Your task to perform on an android device: Search for a new nail polish Image 0: 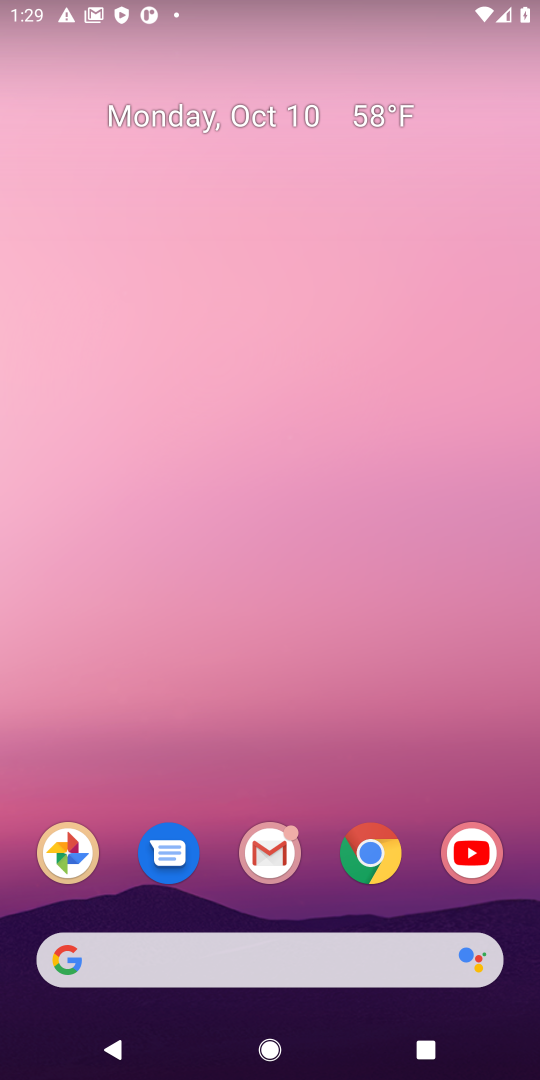
Step 0: drag from (537, 952) to (483, 1063)
Your task to perform on an android device: Search for a new nail polish Image 1: 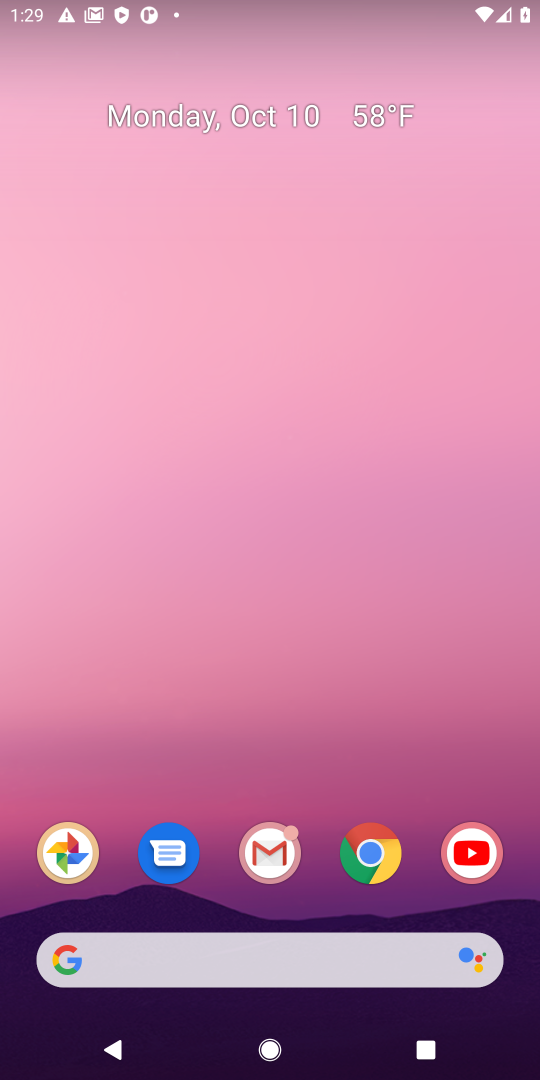
Step 1: click (358, 857)
Your task to perform on an android device: Search for a new nail polish Image 2: 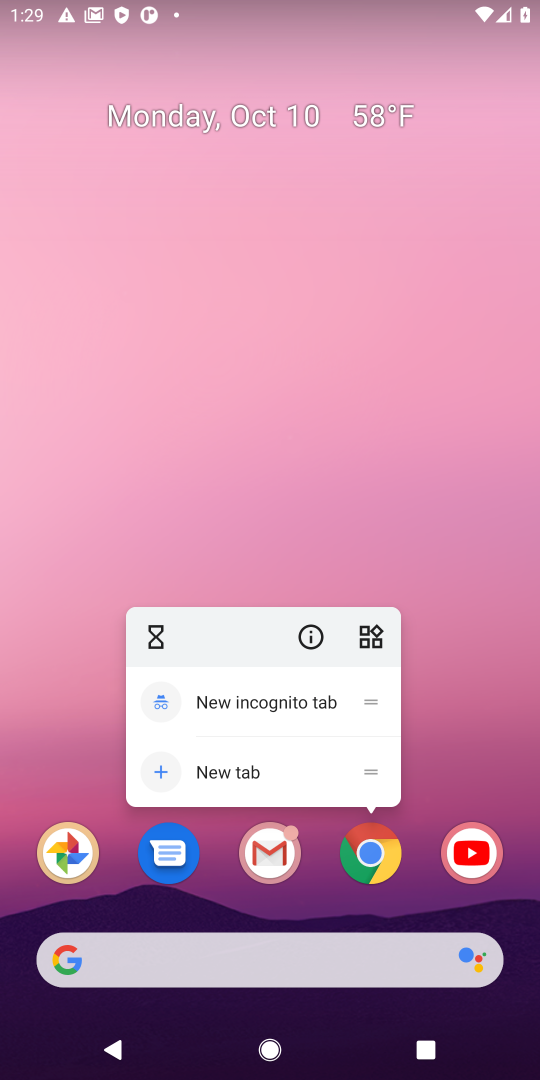
Step 2: click (382, 863)
Your task to perform on an android device: Search for a new nail polish Image 3: 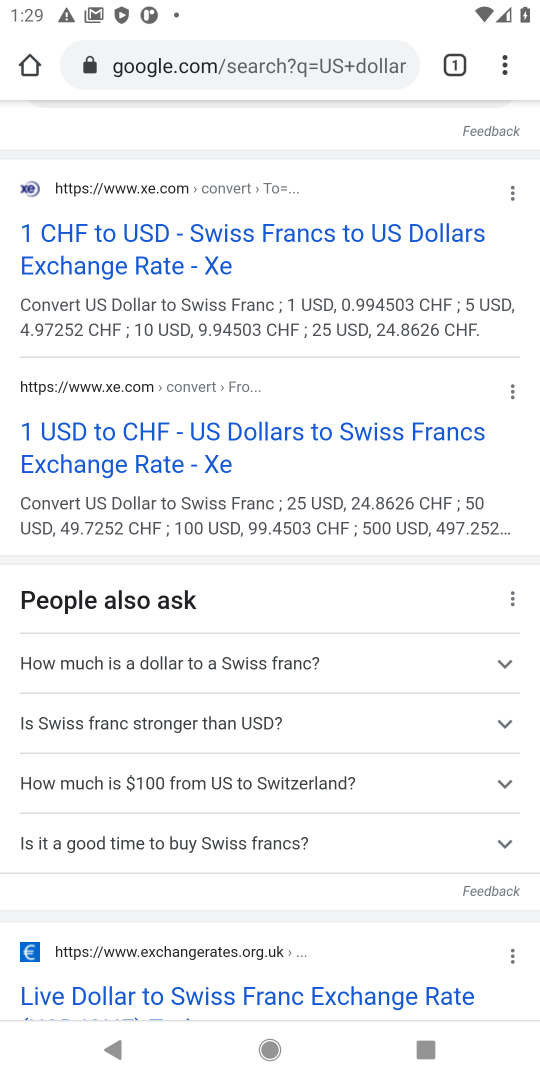
Step 3: click (359, 65)
Your task to perform on an android device: Search for a new nail polish Image 4: 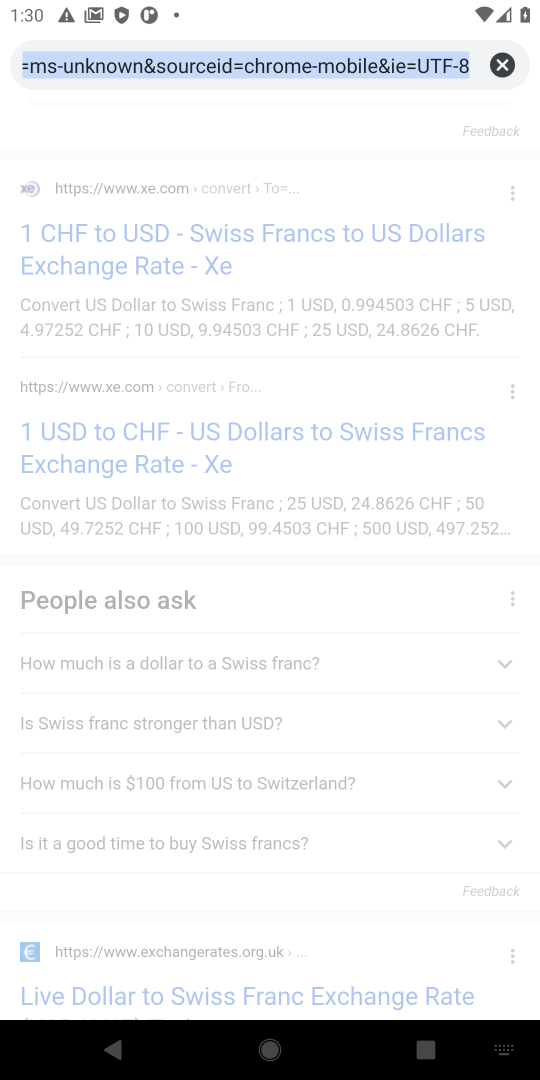
Step 4: type "new nail polish"
Your task to perform on an android device: Search for a new nail polish Image 5: 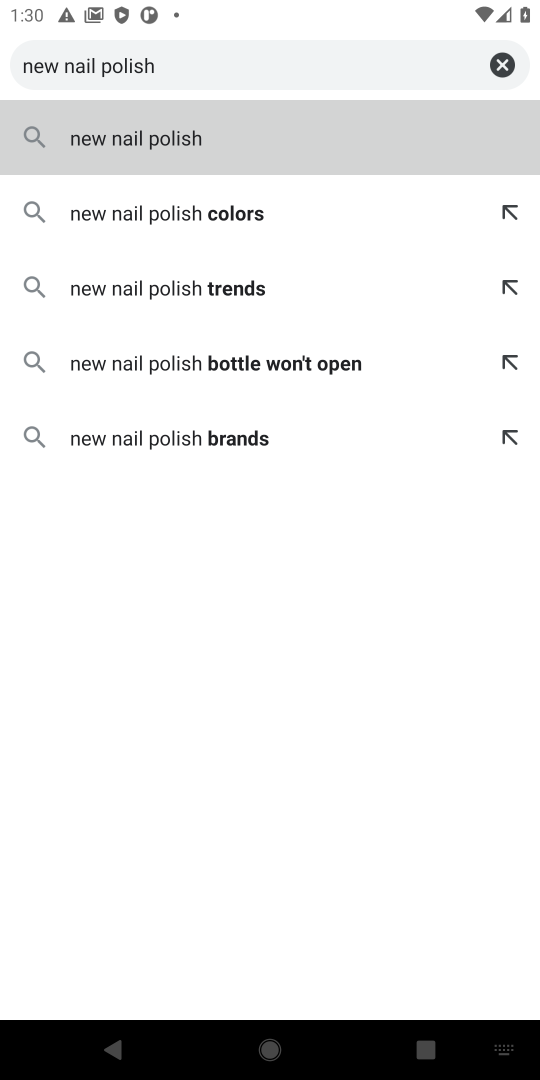
Step 5: type ""
Your task to perform on an android device: Search for a new nail polish Image 6: 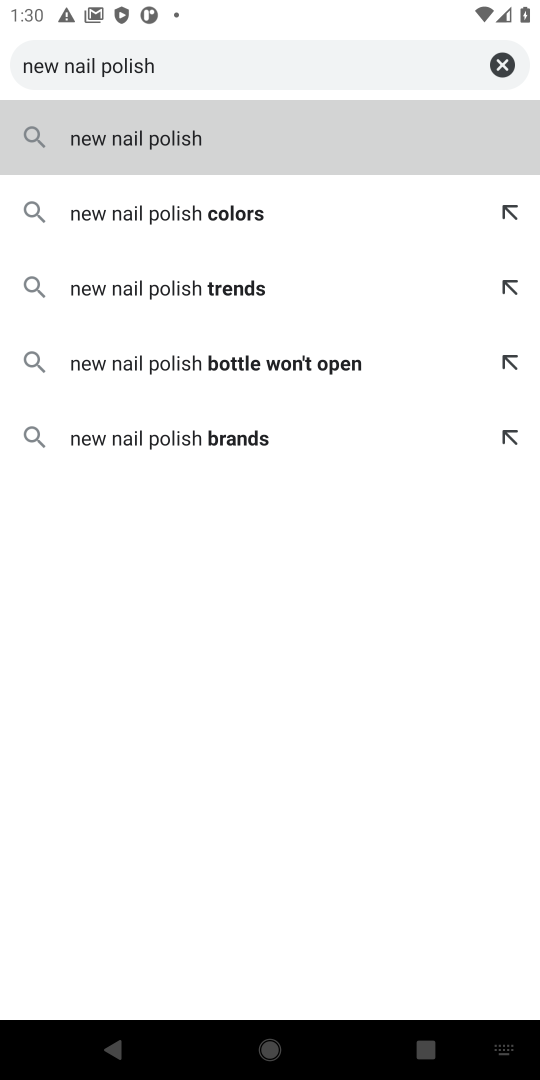
Step 6: click (160, 135)
Your task to perform on an android device: Search for a new nail polish Image 7: 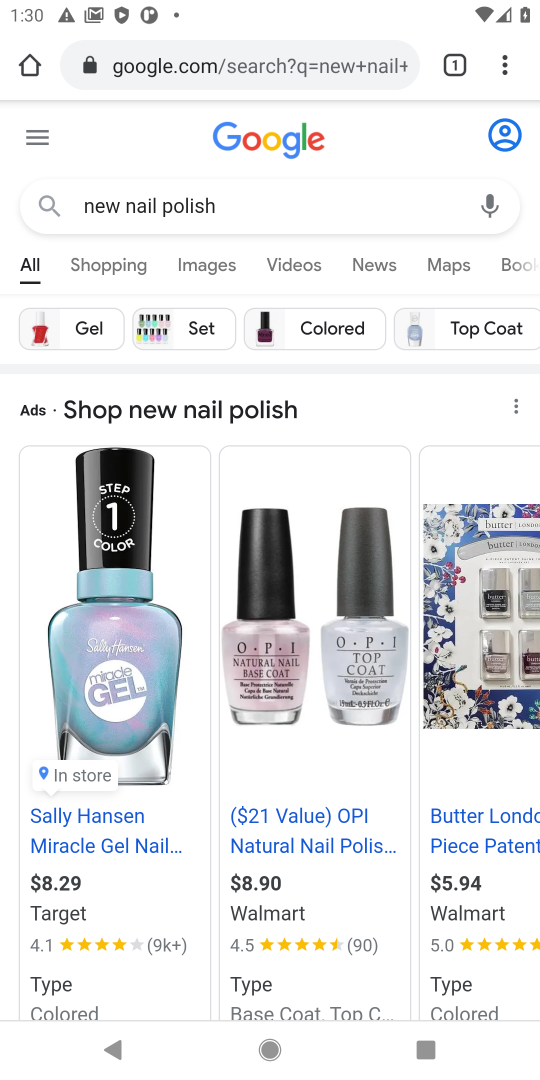
Step 7: task complete